Your task to perform on an android device: Turn on the flashlight Image 0: 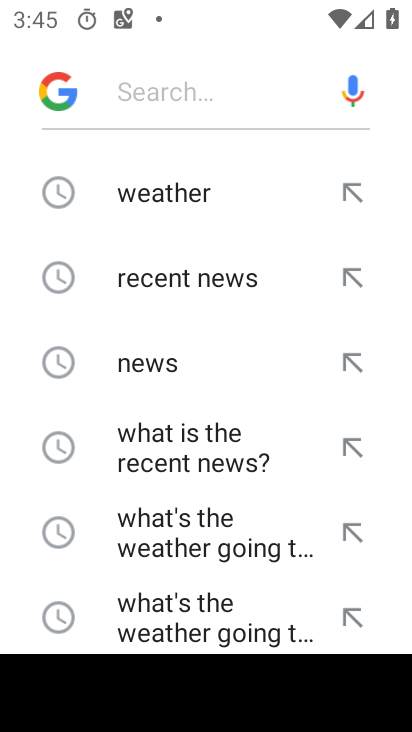
Step 0: press home button
Your task to perform on an android device: Turn on the flashlight Image 1: 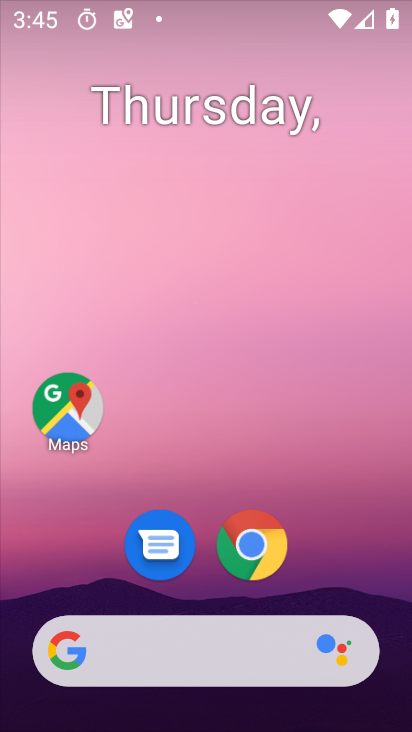
Step 1: drag from (236, 731) to (247, 119)
Your task to perform on an android device: Turn on the flashlight Image 2: 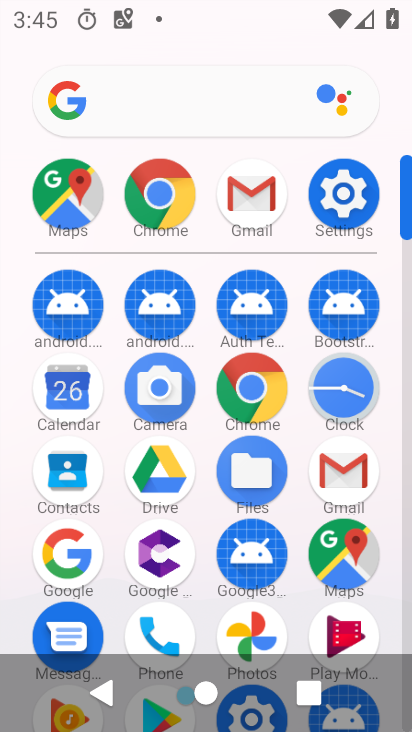
Step 2: click (341, 190)
Your task to perform on an android device: Turn on the flashlight Image 3: 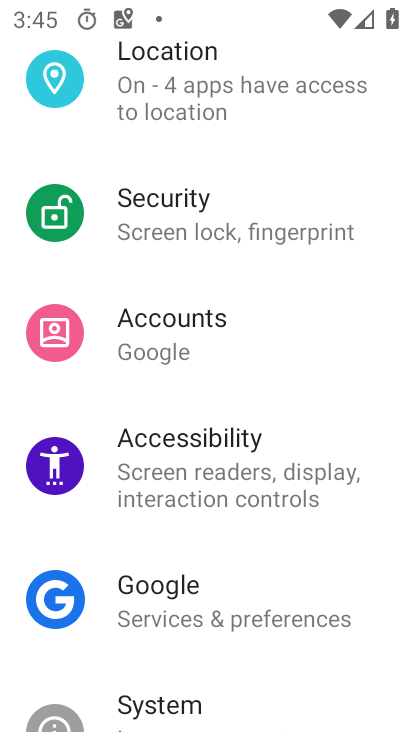
Step 3: task complete